Your task to perform on an android device: allow cookies in the chrome app Image 0: 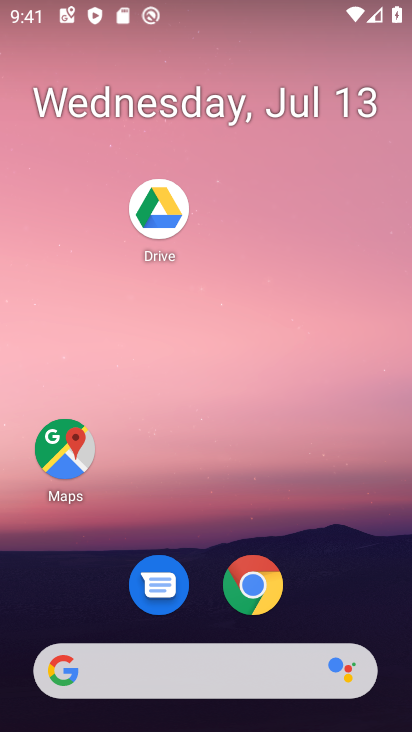
Step 0: click (248, 586)
Your task to perform on an android device: allow cookies in the chrome app Image 1: 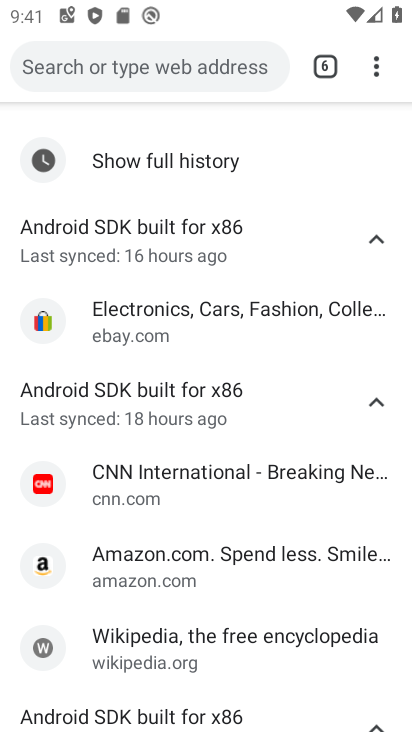
Step 1: drag from (375, 67) to (159, 555)
Your task to perform on an android device: allow cookies in the chrome app Image 2: 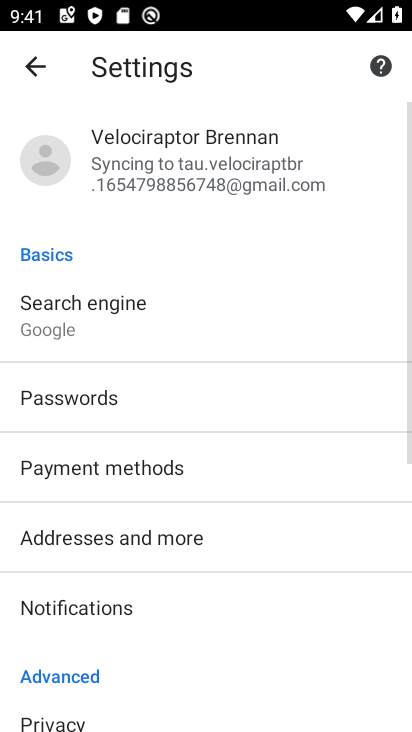
Step 2: drag from (151, 616) to (276, 169)
Your task to perform on an android device: allow cookies in the chrome app Image 3: 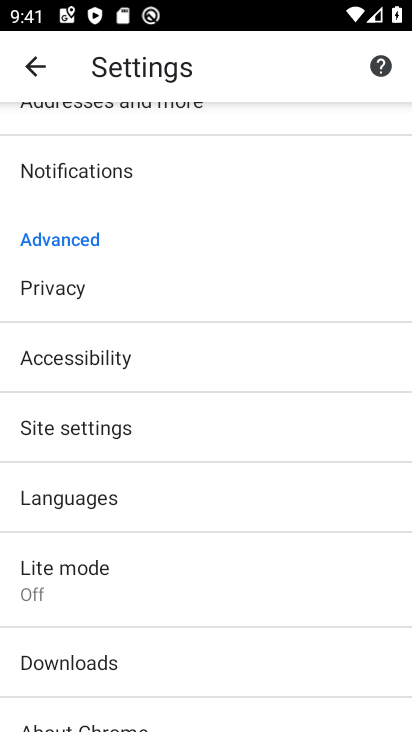
Step 3: click (97, 426)
Your task to perform on an android device: allow cookies in the chrome app Image 4: 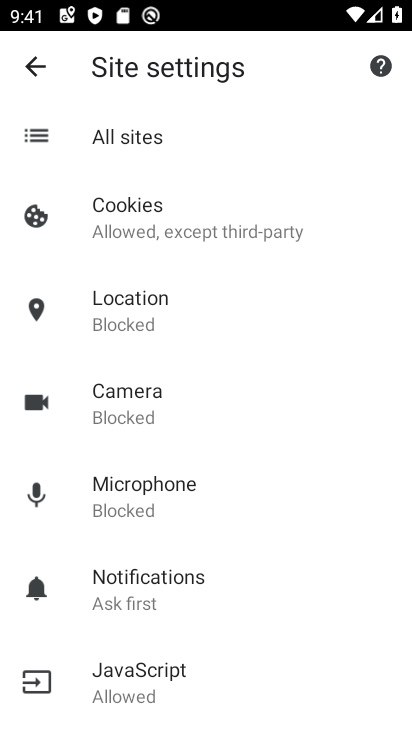
Step 4: click (174, 224)
Your task to perform on an android device: allow cookies in the chrome app Image 5: 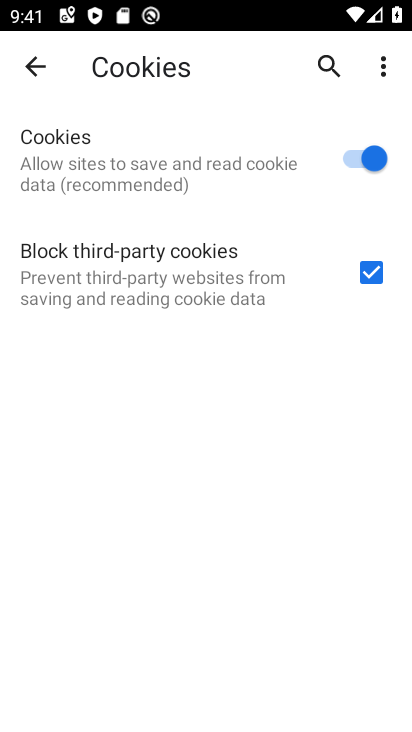
Step 5: task complete